Your task to perform on an android device: change the upload size in google photos Image 0: 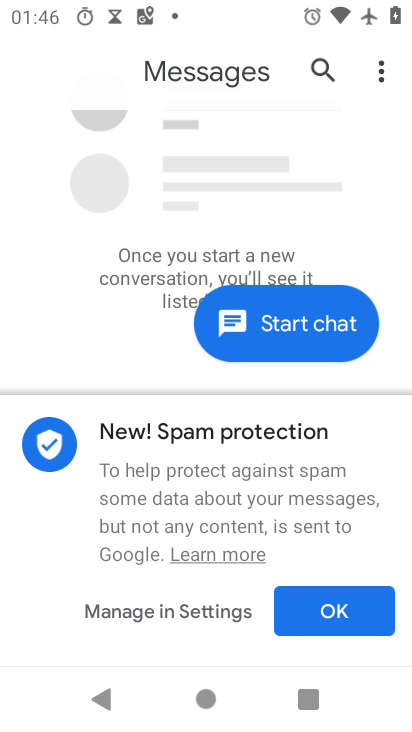
Step 0: press home button
Your task to perform on an android device: change the upload size in google photos Image 1: 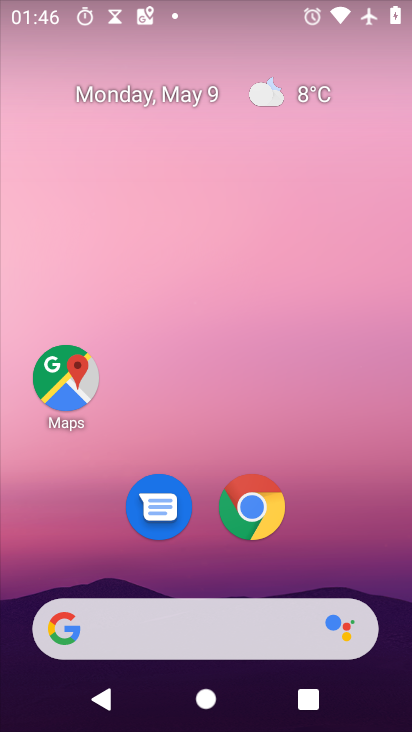
Step 1: drag from (217, 729) to (222, 217)
Your task to perform on an android device: change the upload size in google photos Image 2: 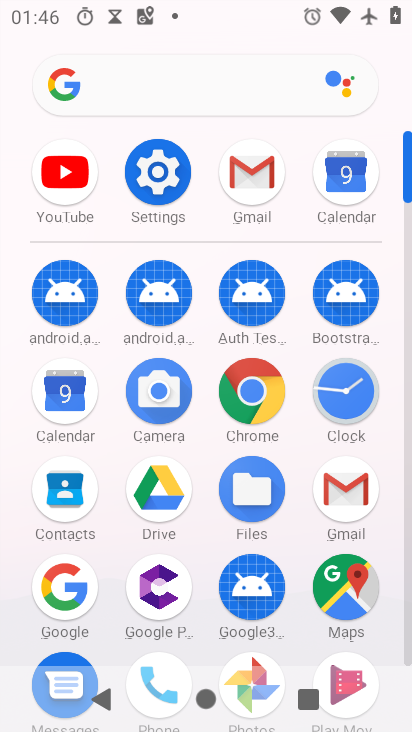
Step 2: drag from (203, 626) to (200, 306)
Your task to perform on an android device: change the upload size in google photos Image 3: 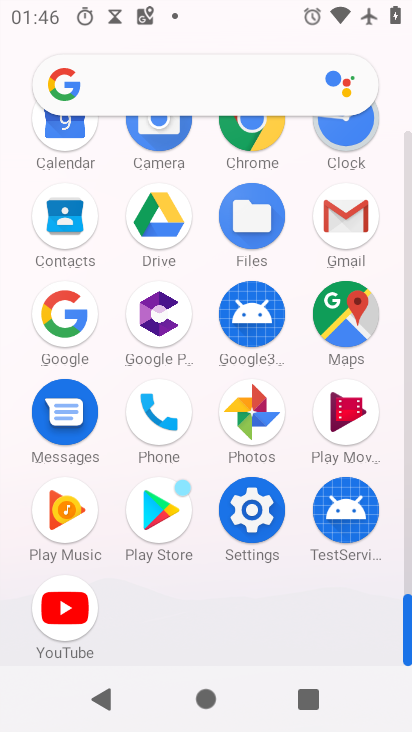
Step 3: click (247, 413)
Your task to perform on an android device: change the upload size in google photos Image 4: 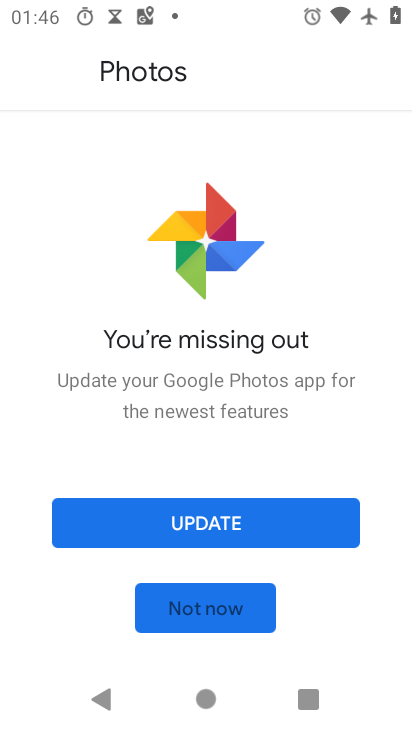
Step 4: task complete